Your task to perform on an android device: toggle airplane mode Image 0: 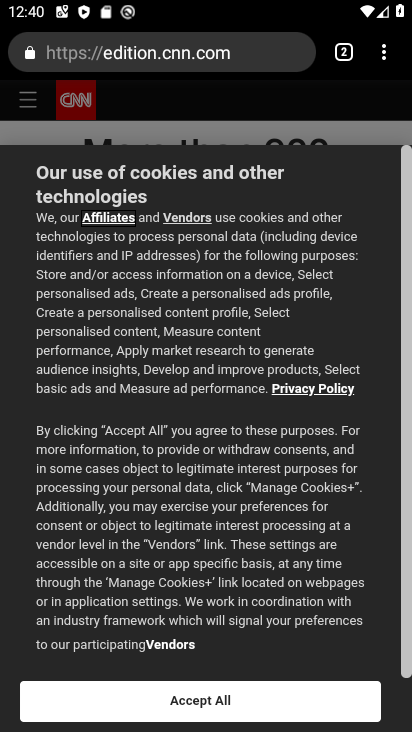
Step 0: press home button
Your task to perform on an android device: toggle airplane mode Image 1: 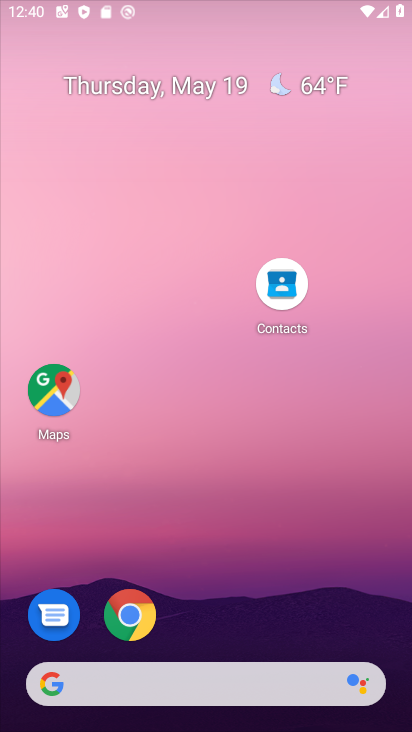
Step 1: drag from (222, 625) to (226, 123)
Your task to perform on an android device: toggle airplane mode Image 2: 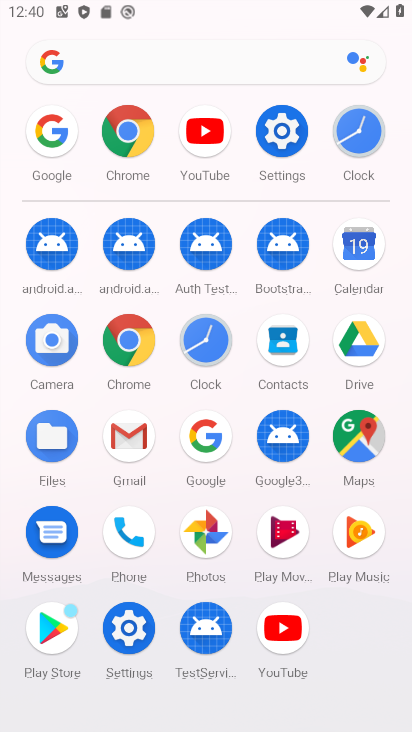
Step 2: click (285, 143)
Your task to perform on an android device: toggle airplane mode Image 3: 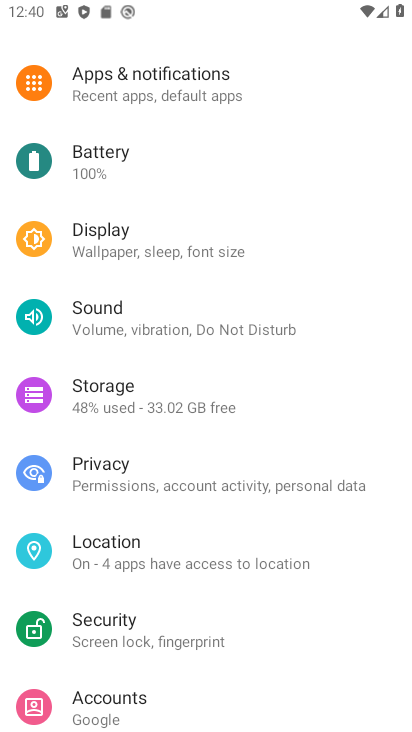
Step 3: drag from (222, 225) to (171, 698)
Your task to perform on an android device: toggle airplane mode Image 4: 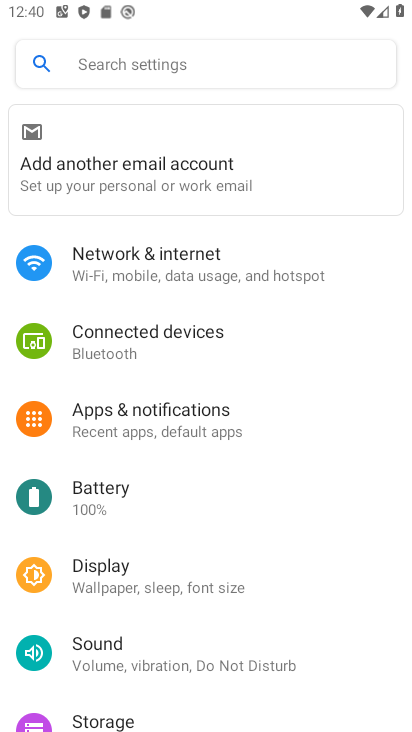
Step 4: click (146, 278)
Your task to perform on an android device: toggle airplane mode Image 5: 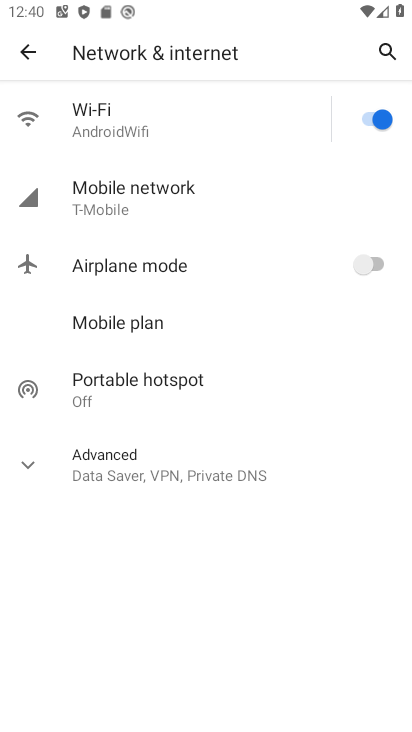
Step 5: click (313, 265)
Your task to perform on an android device: toggle airplane mode Image 6: 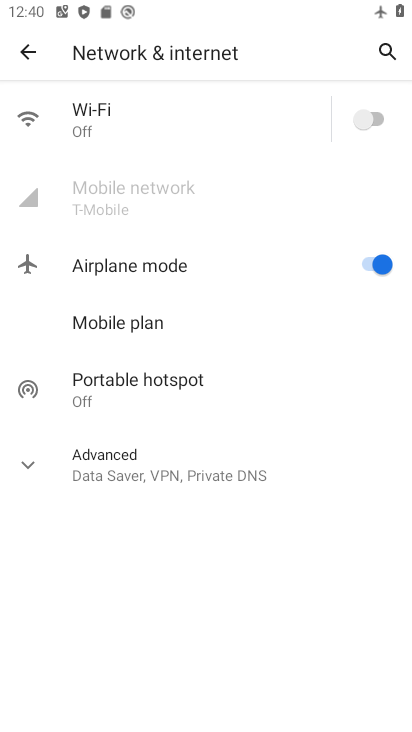
Step 6: task complete